Your task to perform on an android device: Open the stopwatch Image 0: 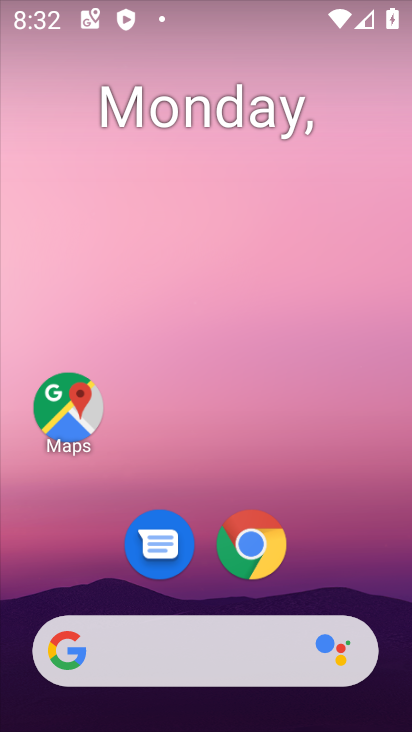
Step 0: drag from (332, 517) to (253, 39)
Your task to perform on an android device: Open the stopwatch Image 1: 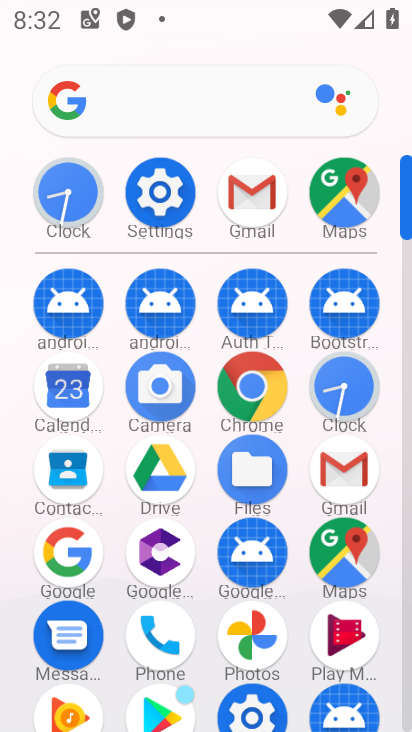
Step 1: click (79, 180)
Your task to perform on an android device: Open the stopwatch Image 2: 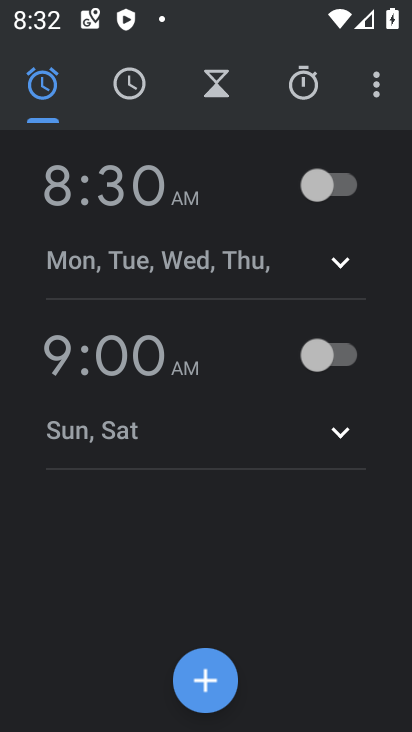
Step 2: click (296, 77)
Your task to perform on an android device: Open the stopwatch Image 3: 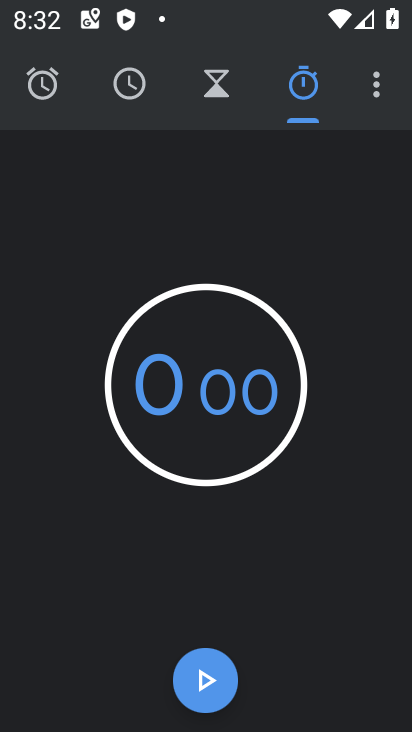
Step 3: task complete